Your task to perform on an android device: turn off translation in the chrome app Image 0: 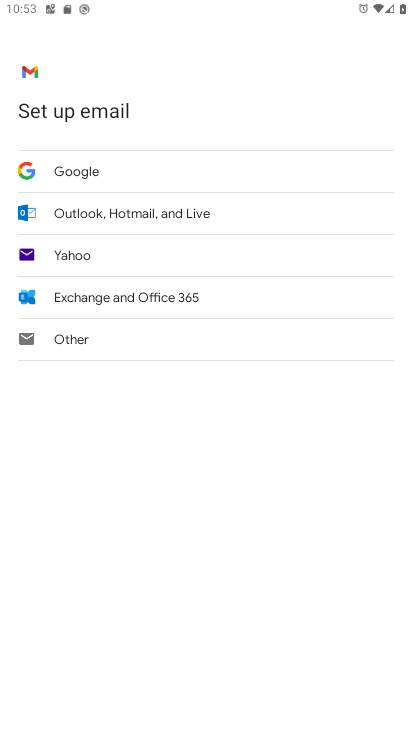
Step 0: task complete